Your task to perform on an android device: turn on improve location accuracy Image 0: 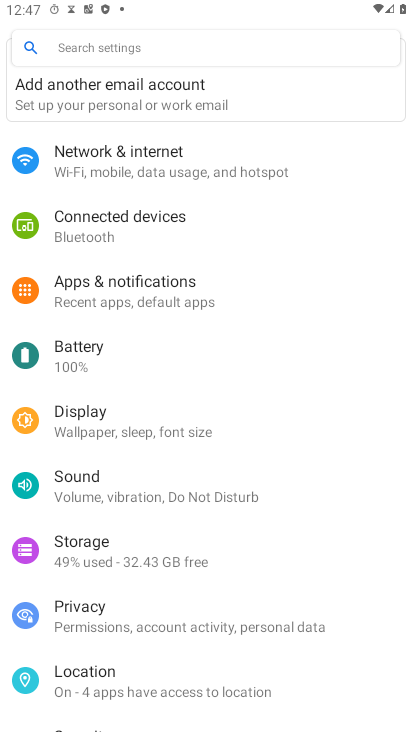
Step 0: click (138, 679)
Your task to perform on an android device: turn on improve location accuracy Image 1: 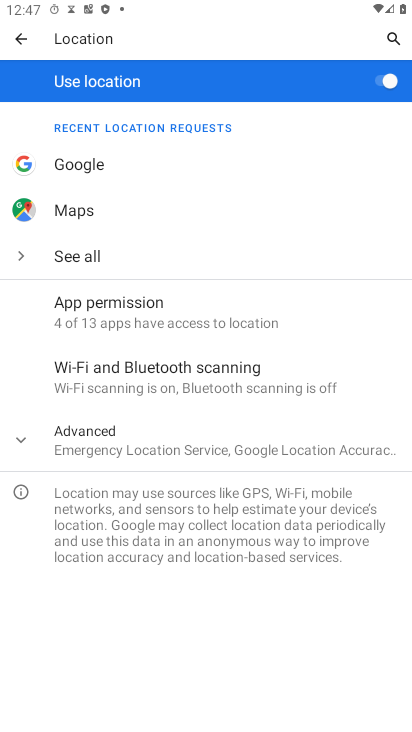
Step 1: click (200, 445)
Your task to perform on an android device: turn on improve location accuracy Image 2: 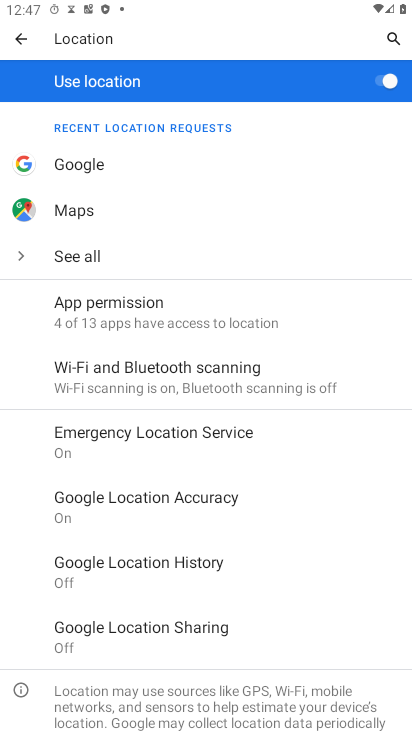
Step 2: click (172, 501)
Your task to perform on an android device: turn on improve location accuracy Image 3: 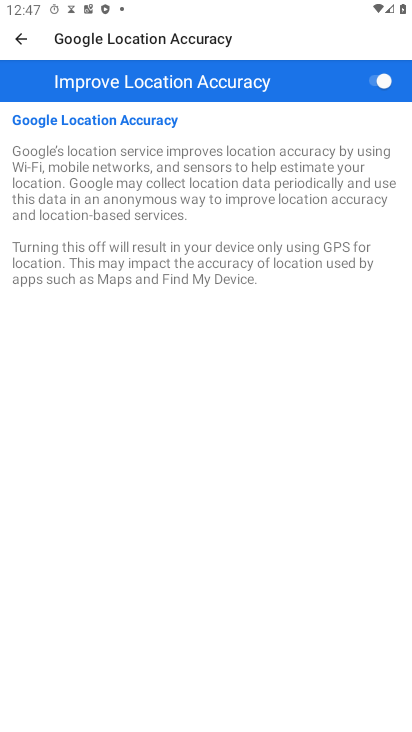
Step 3: task complete